Your task to perform on an android device: Go to settings Image 0: 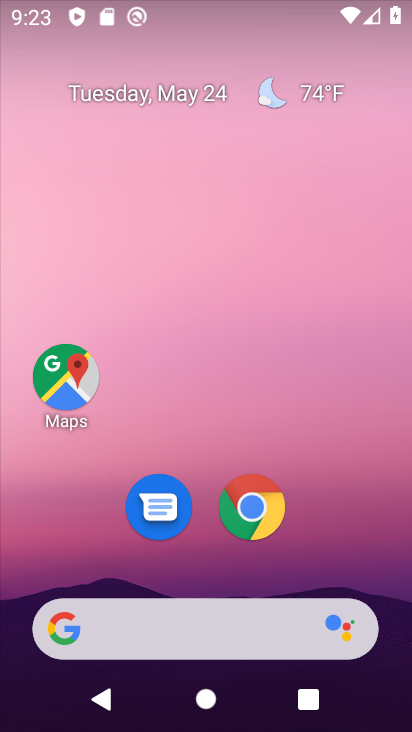
Step 0: drag from (221, 721) to (182, 108)
Your task to perform on an android device: Go to settings Image 1: 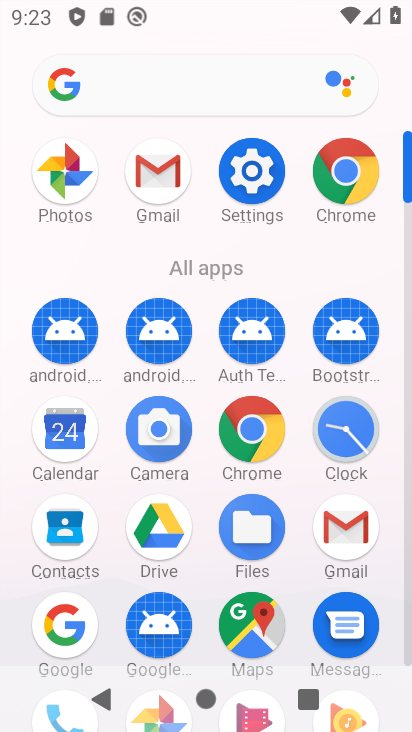
Step 1: click (242, 165)
Your task to perform on an android device: Go to settings Image 2: 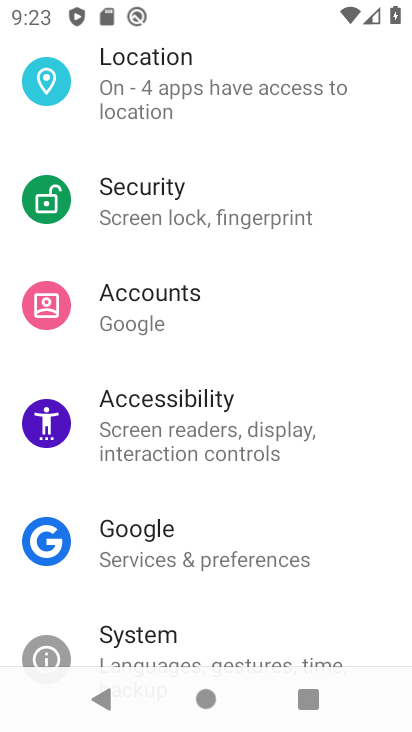
Step 2: task complete